Your task to perform on an android device: Show me popular games on the Play Store Image 0: 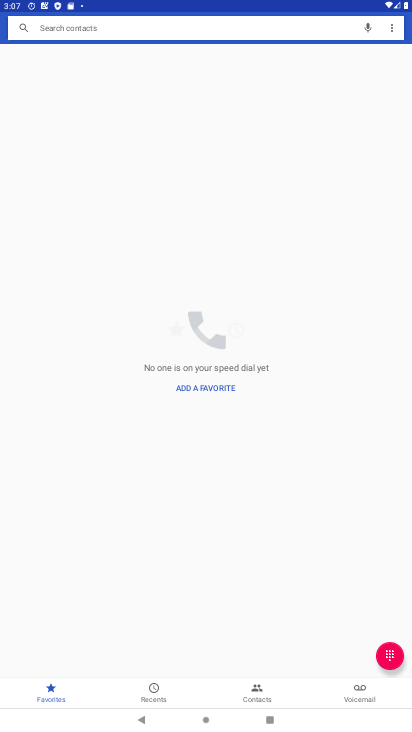
Step 0: press home button
Your task to perform on an android device: Show me popular games on the Play Store Image 1: 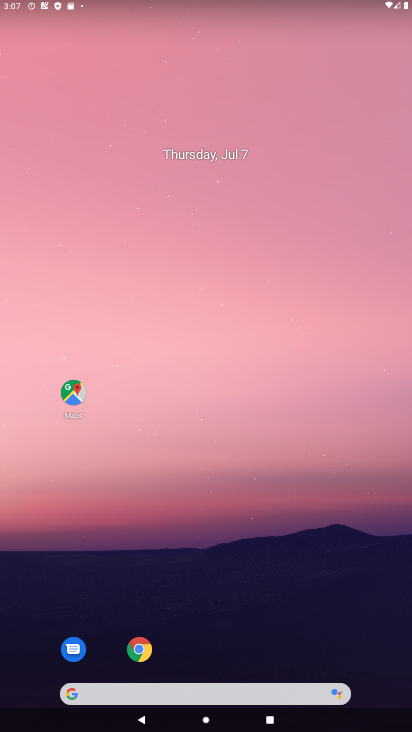
Step 1: drag from (238, 687) to (257, 39)
Your task to perform on an android device: Show me popular games on the Play Store Image 2: 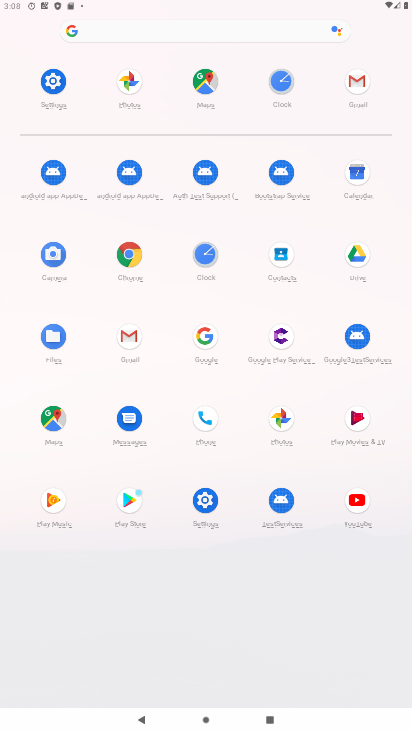
Step 2: click (132, 498)
Your task to perform on an android device: Show me popular games on the Play Store Image 3: 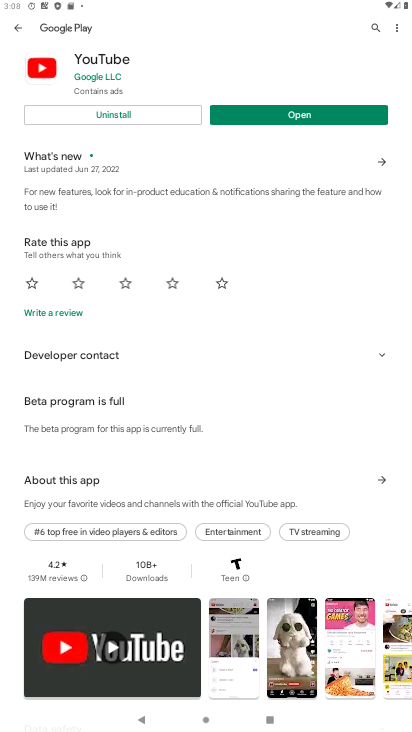
Step 3: press home button
Your task to perform on an android device: Show me popular games on the Play Store Image 4: 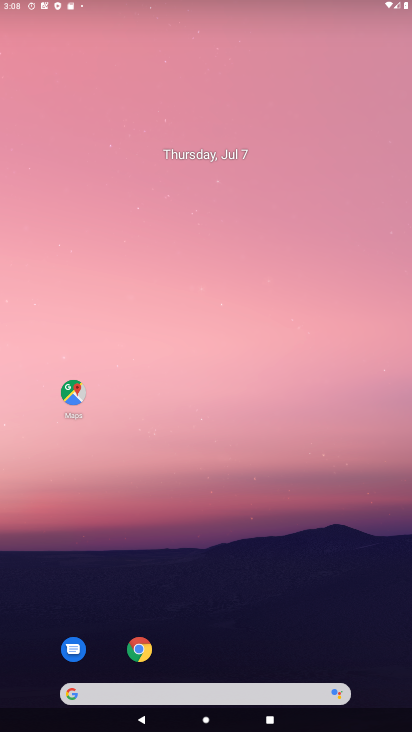
Step 4: drag from (284, 682) to (317, 40)
Your task to perform on an android device: Show me popular games on the Play Store Image 5: 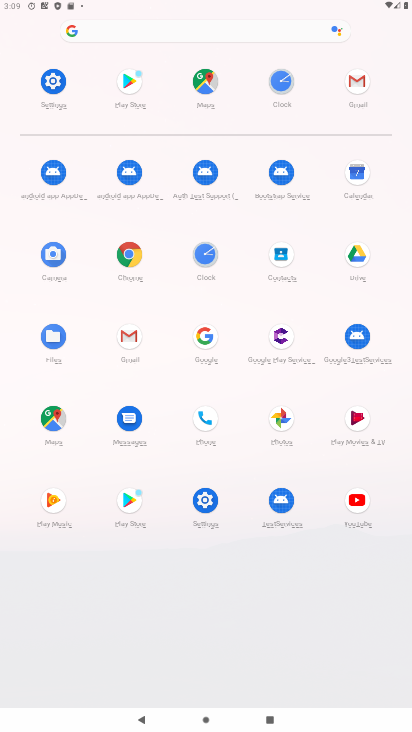
Step 5: click (133, 515)
Your task to perform on an android device: Show me popular games on the Play Store Image 6: 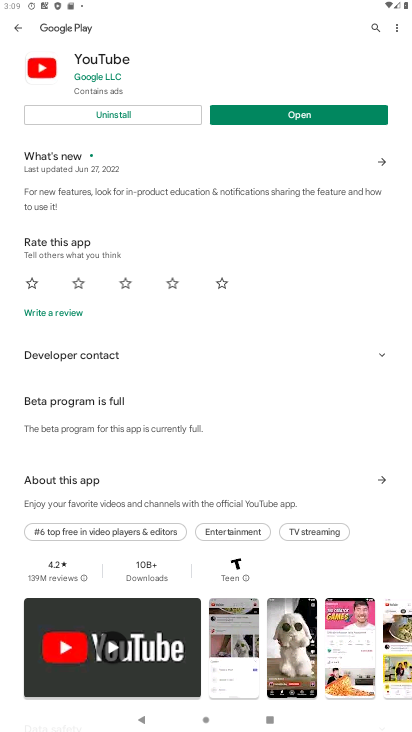
Step 6: press back button
Your task to perform on an android device: Show me popular games on the Play Store Image 7: 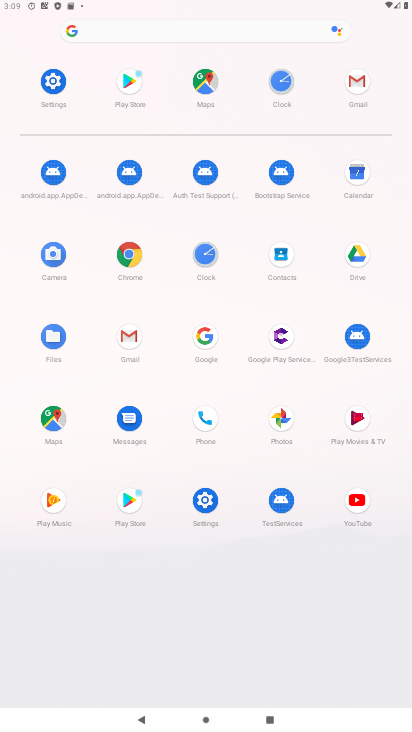
Step 7: click (130, 497)
Your task to perform on an android device: Show me popular games on the Play Store Image 8: 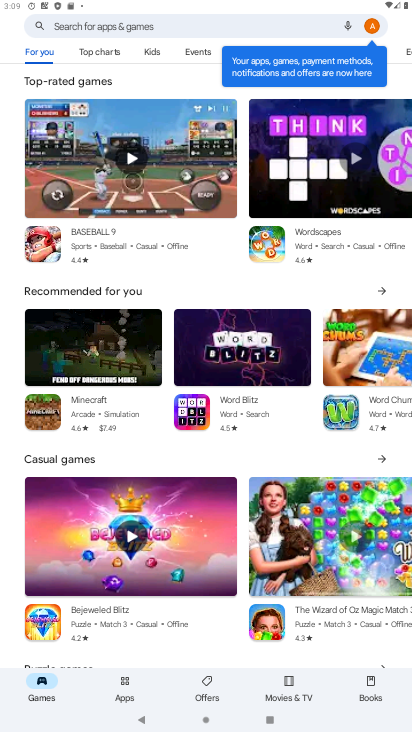
Step 8: drag from (137, 543) to (150, 320)
Your task to perform on an android device: Show me popular games on the Play Store Image 9: 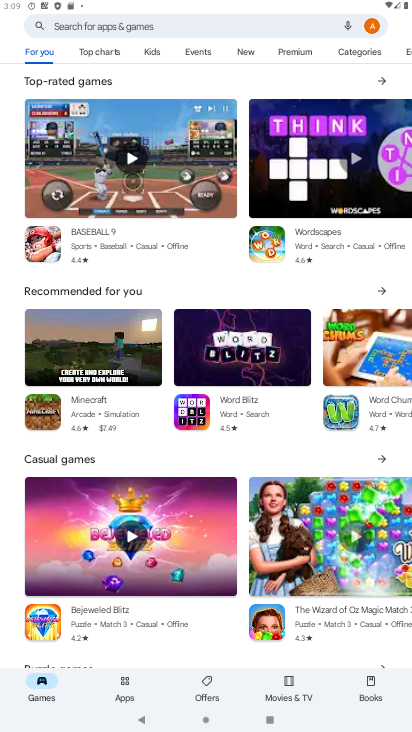
Step 9: drag from (253, 436) to (229, 71)
Your task to perform on an android device: Show me popular games on the Play Store Image 10: 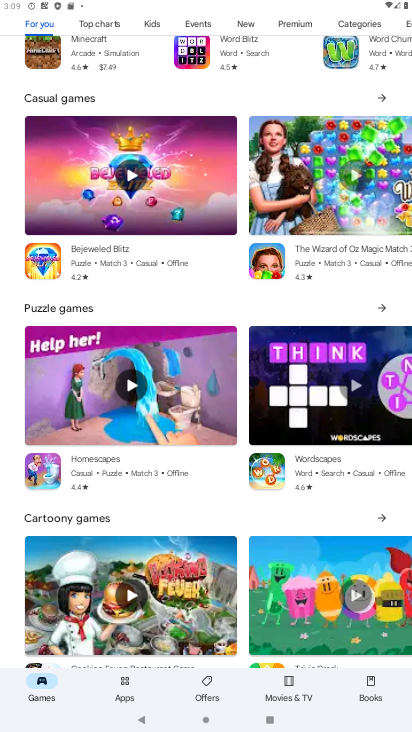
Step 10: drag from (173, 442) to (171, 104)
Your task to perform on an android device: Show me popular games on the Play Store Image 11: 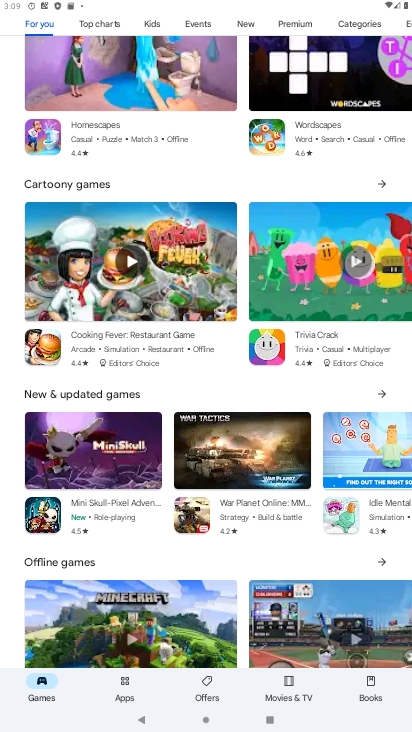
Step 11: drag from (120, 530) to (185, 61)
Your task to perform on an android device: Show me popular games on the Play Store Image 12: 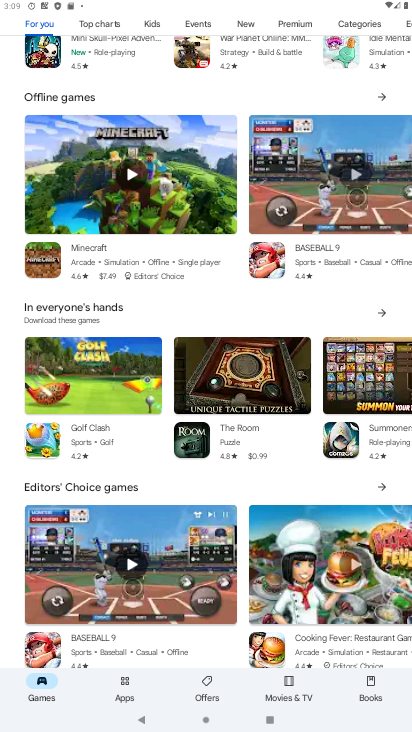
Step 12: drag from (150, 485) to (211, 86)
Your task to perform on an android device: Show me popular games on the Play Store Image 13: 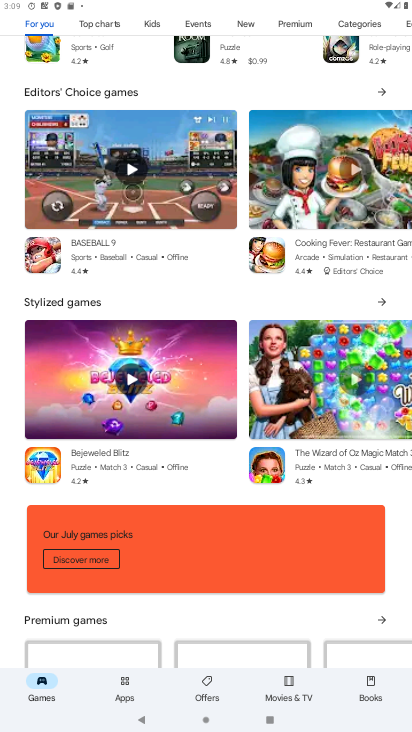
Step 13: drag from (232, 480) to (270, 107)
Your task to perform on an android device: Show me popular games on the Play Store Image 14: 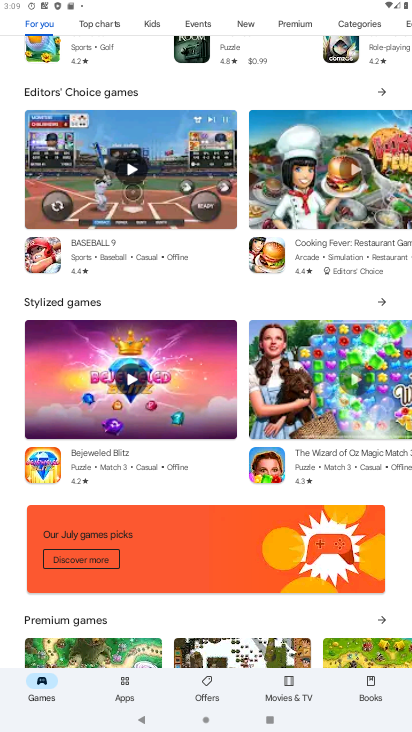
Step 14: drag from (192, 621) to (212, 69)
Your task to perform on an android device: Show me popular games on the Play Store Image 15: 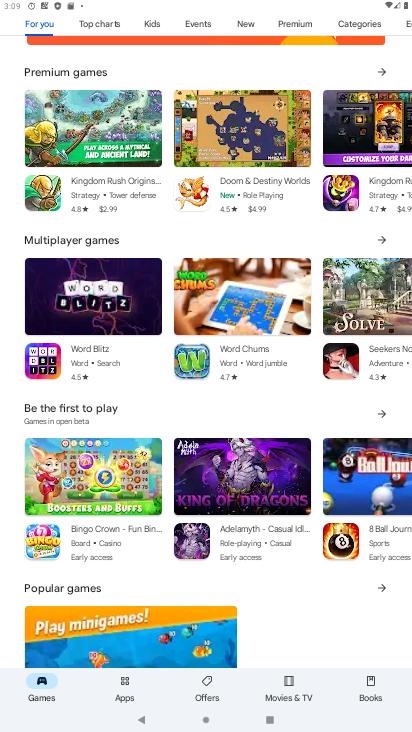
Step 15: drag from (260, 617) to (286, 258)
Your task to perform on an android device: Show me popular games on the Play Store Image 16: 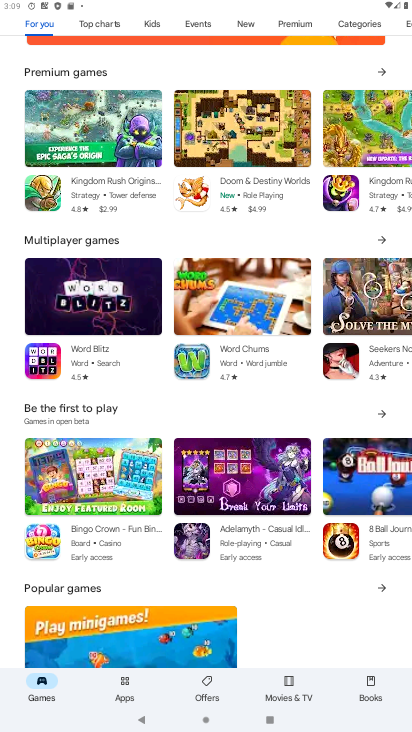
Step 16: drag from (271, 604) to (269, 407)
Your task to perform on an android device: Show me popular games on the Play Store Image 17: 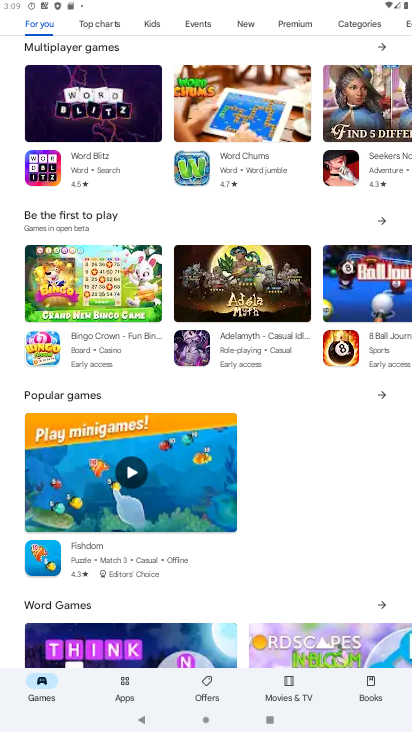
Step 17: click (389, 394)
Your task to perform on an android device: Show me popular games on the Play Store Image 18: 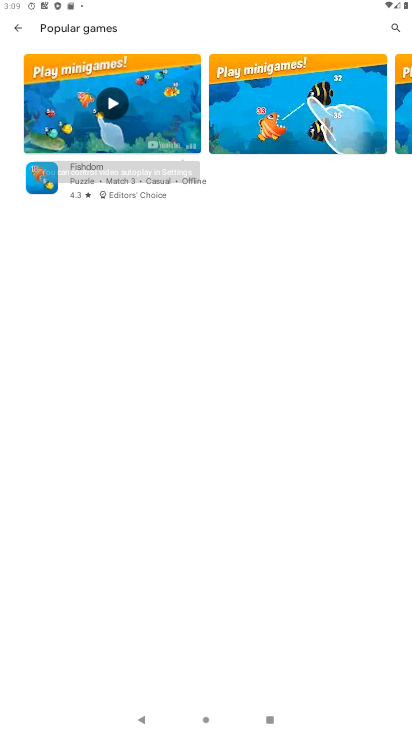
Step 18: task complete